Your task to perform on an android device: Go to privacy settings Image 0: 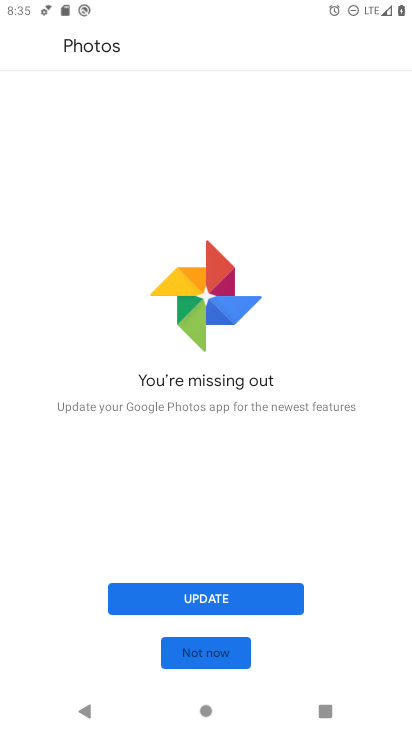
Step 0: press home button
Your task to perform on an android device: Go to privacy settings Image 1: 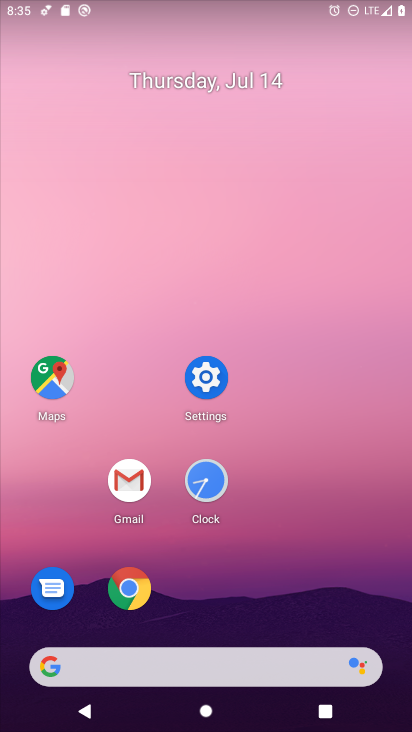
Step 1: click (204, 374)
Your task to perform on an android device: Go to privacy settings Image 2: 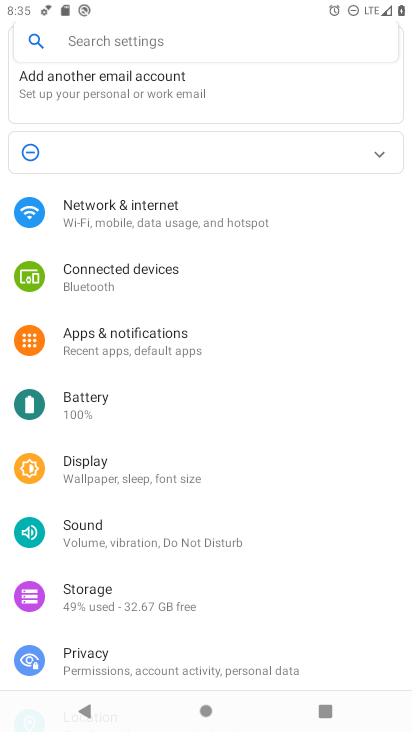
Step 2: click (104, 651)
Your task to perform on an android device: Go to privacy settings Image 3: 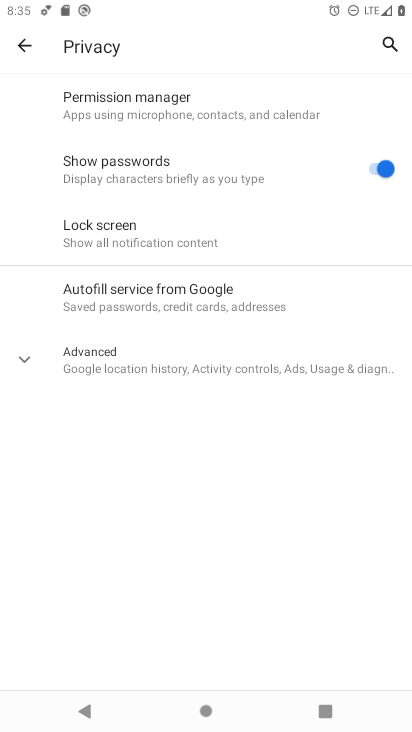
Step 3: task complete